Your task to perform on an android device: open wifi settings Image 0: 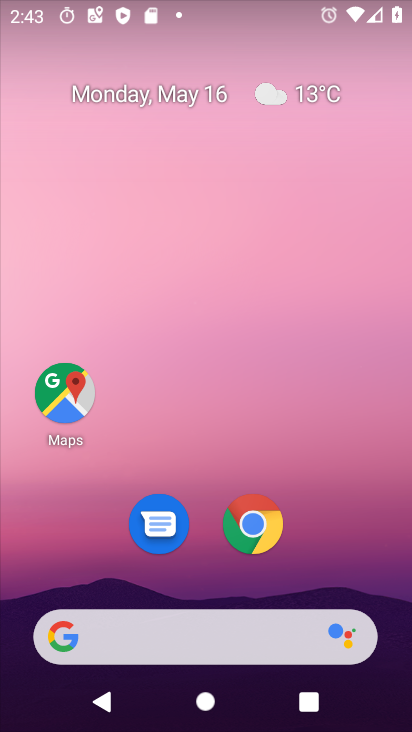
Step 0: drag from (323, 509) to (318, 100)
Your task to perform on an android device: open wifi settings Image 1: 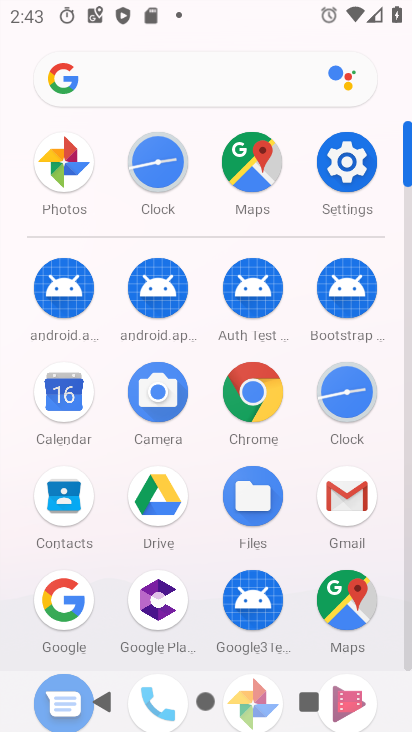
Step 1: click (350, 168)
Your task to perform on an android device: open wifi settings Image 2: 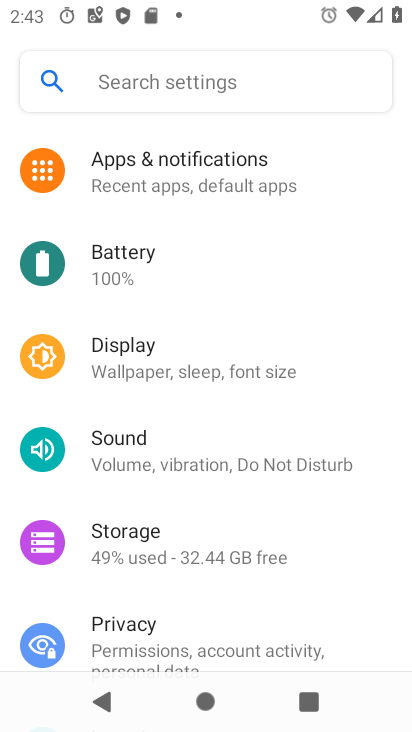
Step 2: drag from (225, 240) to (190, 591)
Your task to perform on an android device: open wifi settings Image 3: 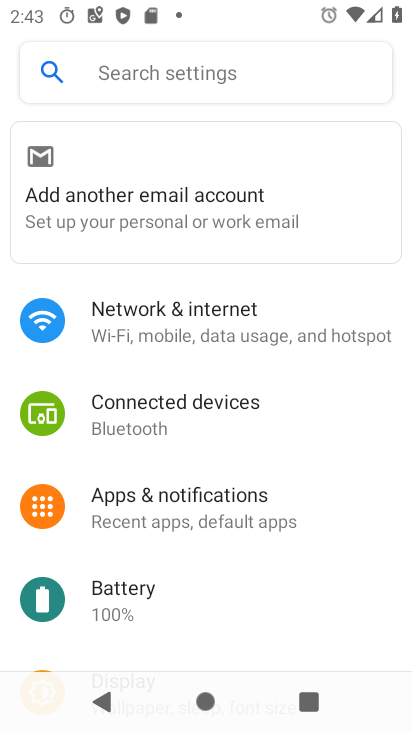
Step 3: click (216, 325)
Your task to perform on an android device: open wifi settings Image 4: 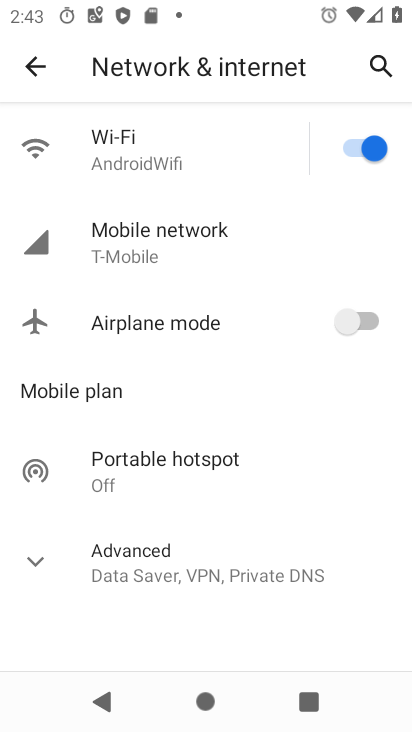
Step 4: click (140, 150)
Your task to perform on an android device: open wifi settings Image 5: 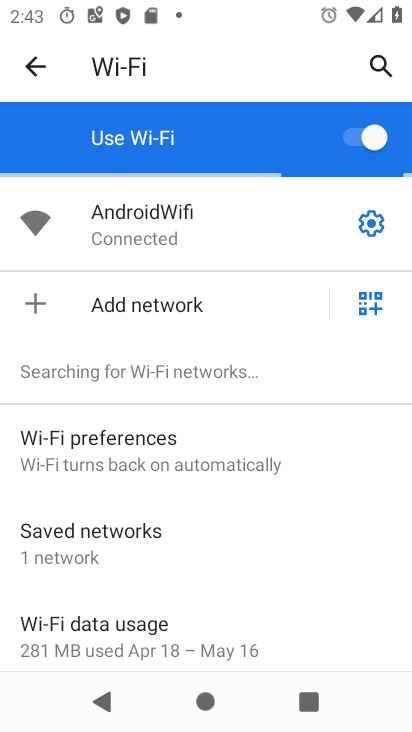
Step 5: task complete